Your task to perform on an android device: stop showing notifications on the lock screen Image 0: 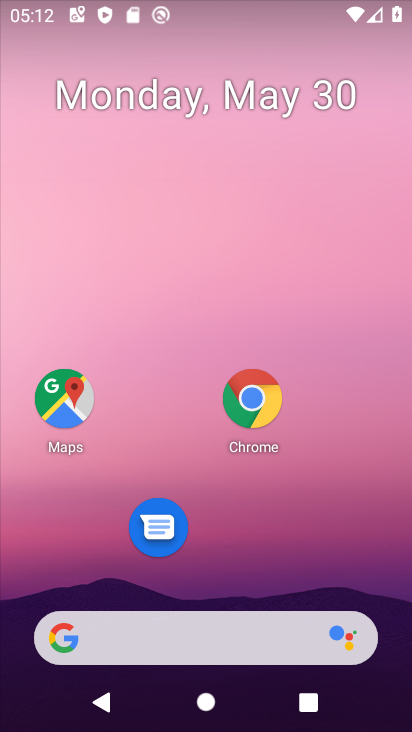
Step 0: drag from (229, 728) to (195, 11)
Your task to perform on an android device: stop showing notifications on the lock screen Image 1: 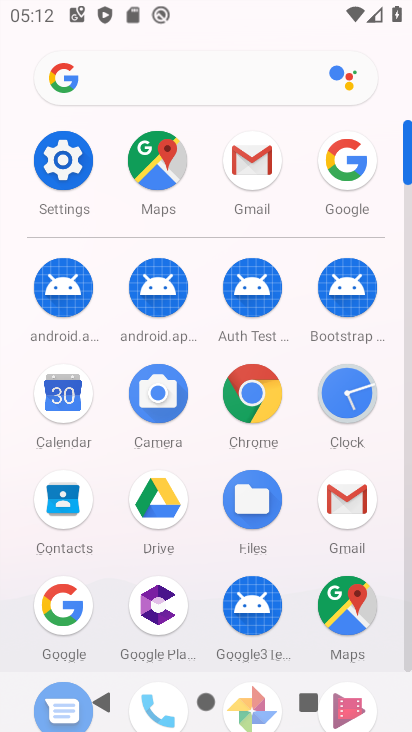
Step 1: click (64, 157)
Your task to perform on an android device: stop showing notifications on the lock screen Image 2: 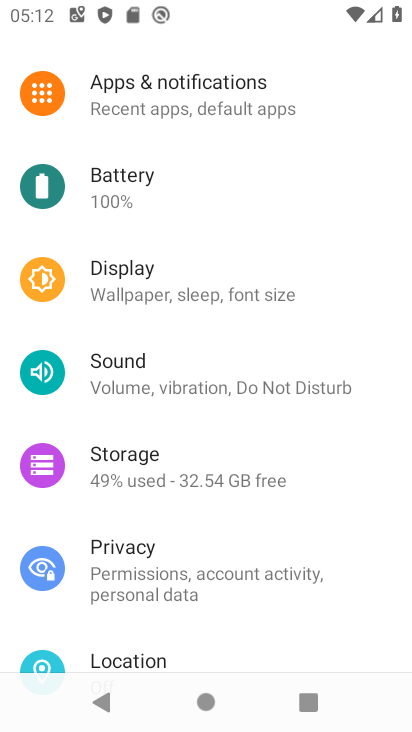
Step 2: click (203, 89)
Your task to perform on an android device: stop showing notifications on the lock screen Image 3: 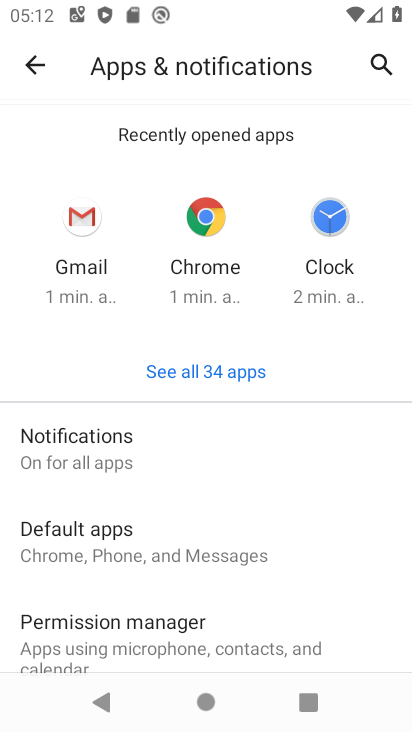
Step 3: click (82, 461)
Your task to perform on an android device: stop showing notifications on the lock screen Image 4: 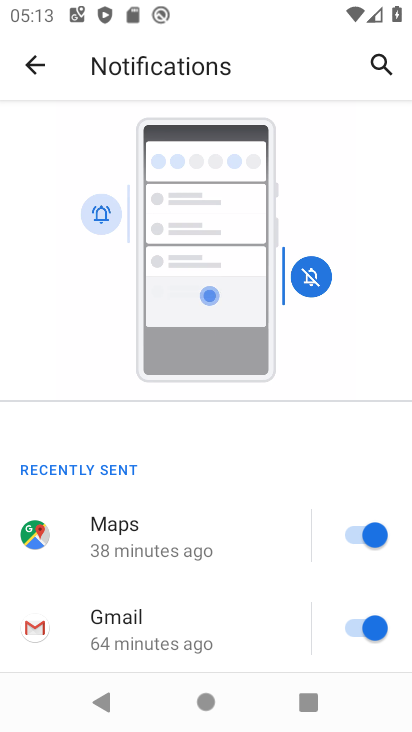
Step 4: task complete